Your task to perform on an android device: change notifications settings Image 0: 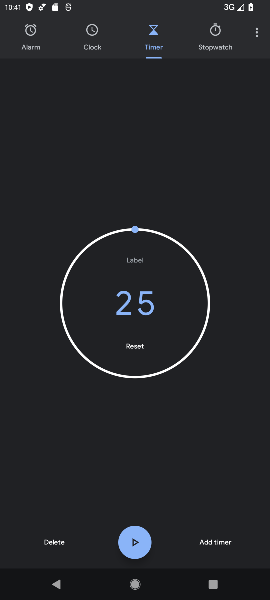
Step 0: press home button
Your task to perform on an android device: change notifications settings Image 1: 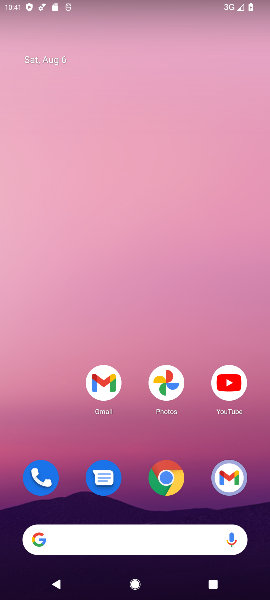
Step 1: drag from (124, 451) to (116, 20)
Your task to perform on an android device: change notifications settings Image 2: 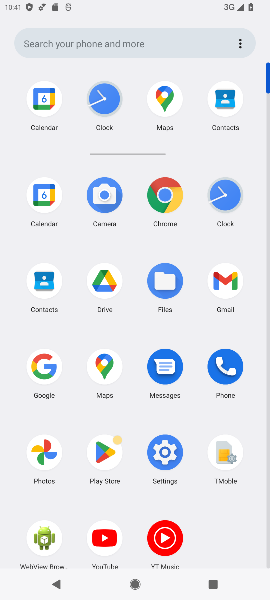
Step 2: click (165, 450)
Your task to perform on an android device: change notifications settings Image 3: 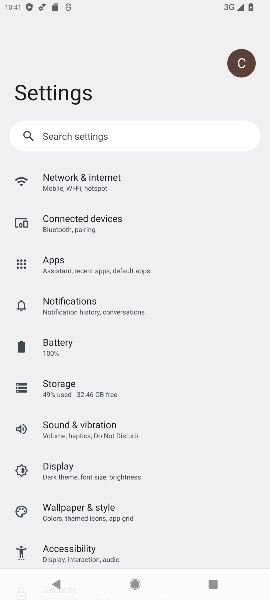
Step 3: click (67, 301)
Your task to perform on an android device: change notifications settings Image 4: 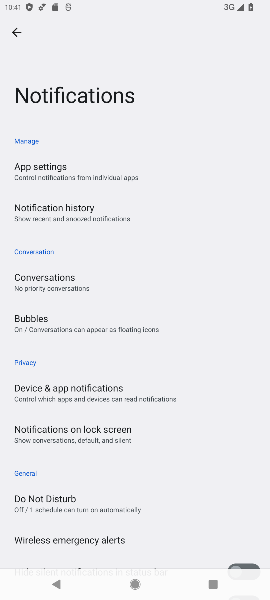
Step 4: drag from (87, 496) to (94, 230)
Your task to perform on an android device: change notifications settings Image 5: 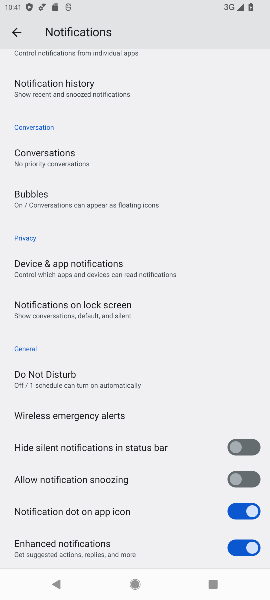
Step 5: click (250, 446)
Your task to perform on an android device: change notifications settings Image 6: 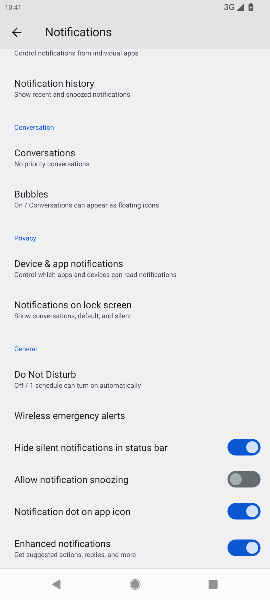
Step 6: task complete